Your task to perform on an android device: Search for pizza restaurants on Maps Image 0: 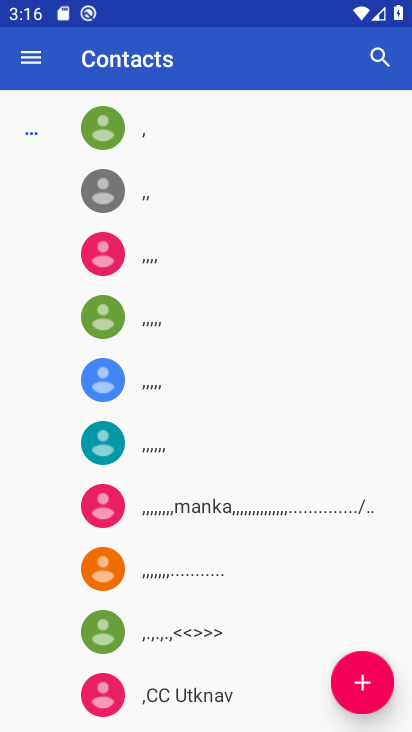
Step 0: press home button
Your task to perform on an android device: Search for pizza restaurants on Maps Image 1: 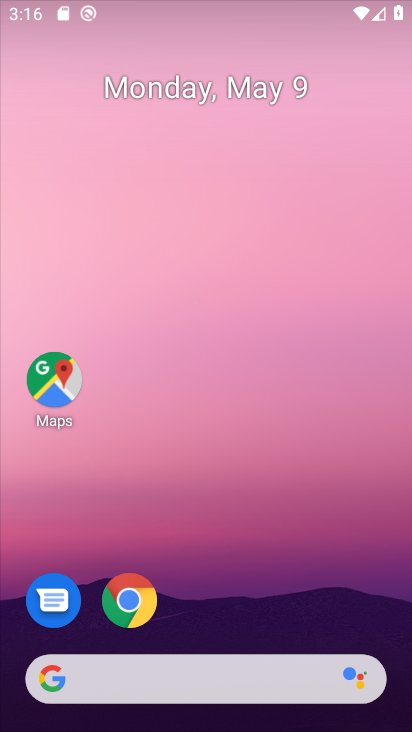
Step 1: drag from (256, 590) to (257, 252)
Your task to perform on an android device: Search for pizza restaurants on Maps Image 2: 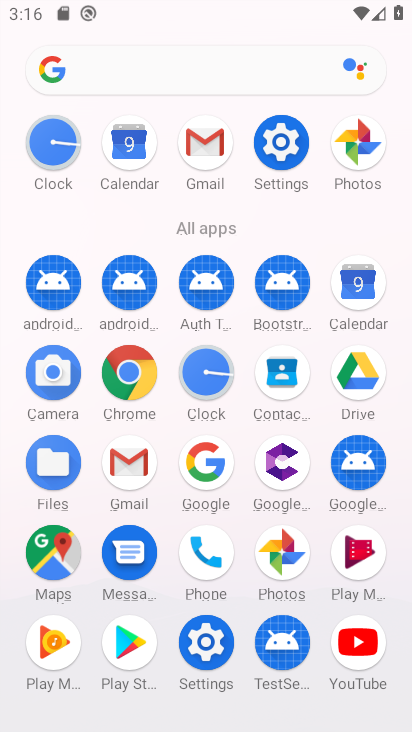
Step 2: click (69, 568)
Your task to perform on an android device: Search for pizza restaurants on Maps Image 3: 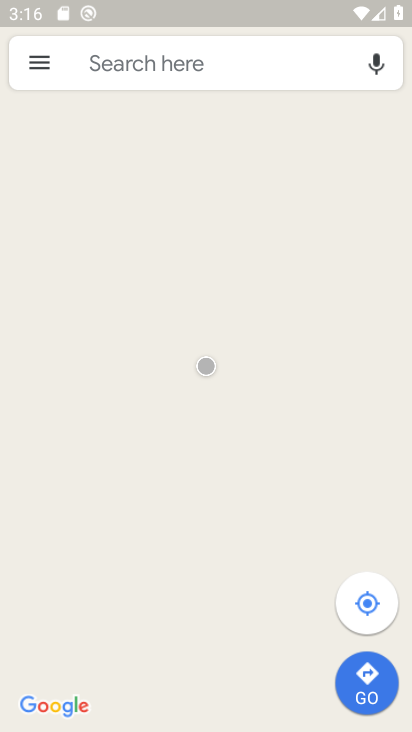
Step 3: click (241, 58)
Your task to perform on an android device: Search for pizza restaurants on Maps Image 4: 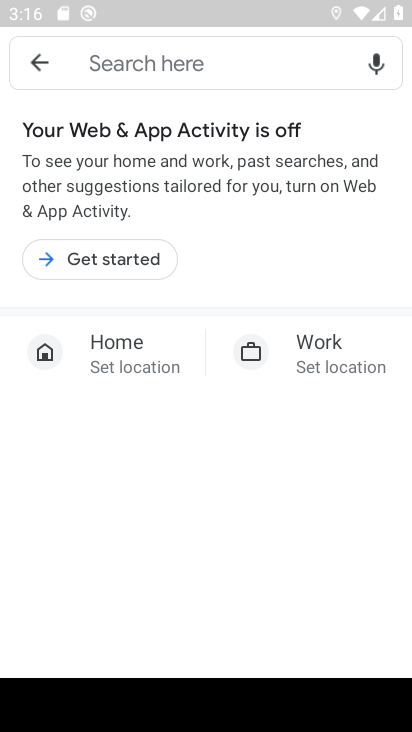
Step 4: click (148, 68)
Your task to perform on an android device: Search for pizza restaurants on Maps Image 5: 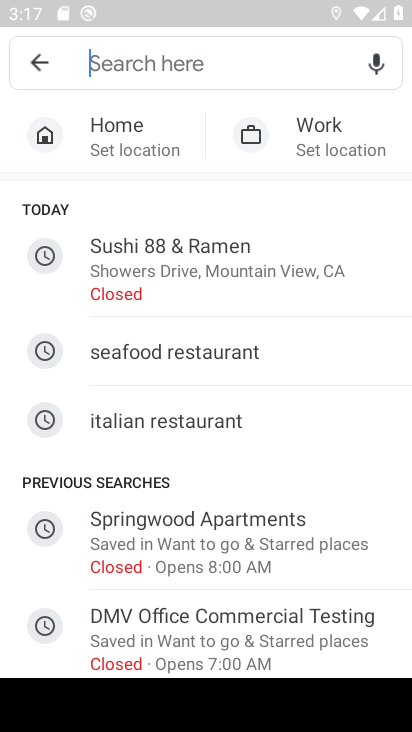
Step 5: drag from (214, 531) to (219, 344)
Your task to perform on an android device: Search for pizza restaurants on Maps Image 6: 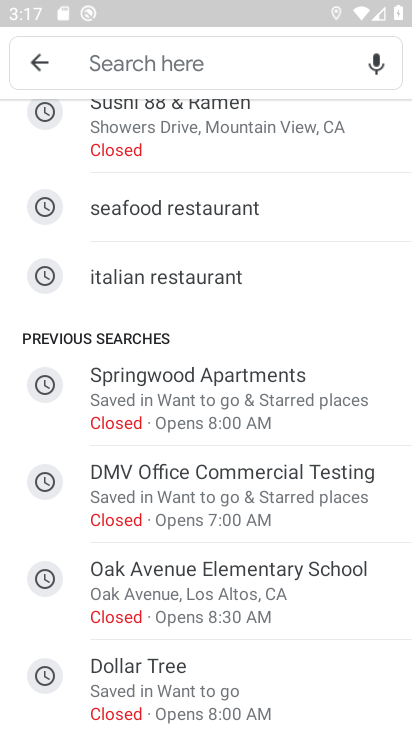
Step 6: drag from (239, 666) to (274, 356)
Your task to perform on an android device: Search for pizza restaurants on Maps Image 7: 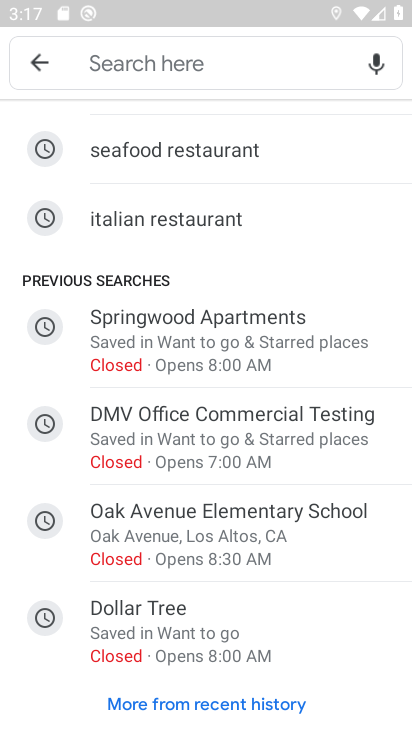
Step 7: click (204, 76)
Your task to perform on an android device: Search for pizza restaurants on Maps Image 8: 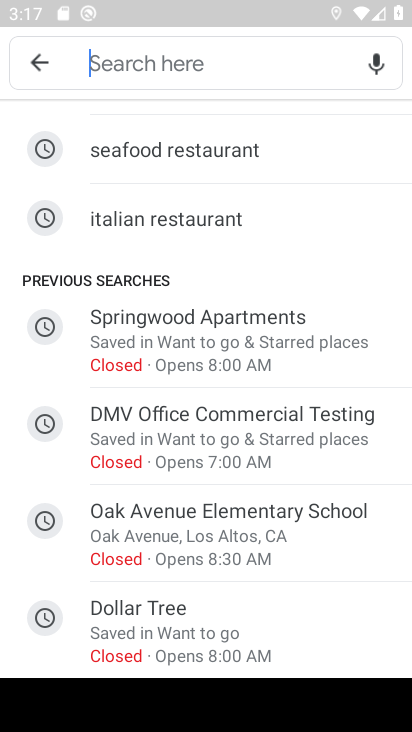
Step 8: type "pizza restaurants"
Your task to perform on an android device: Search for pizza restaurants on Maps Image 9: 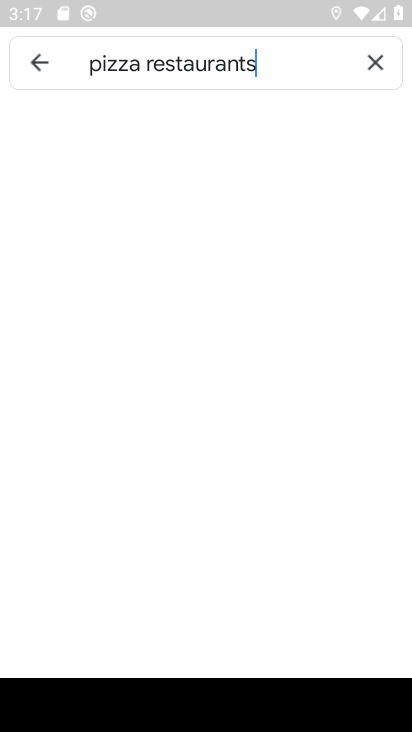
Step 9: type ""
Your task to perform on an android device: Search for pizza restaurants on Maps Image 10: 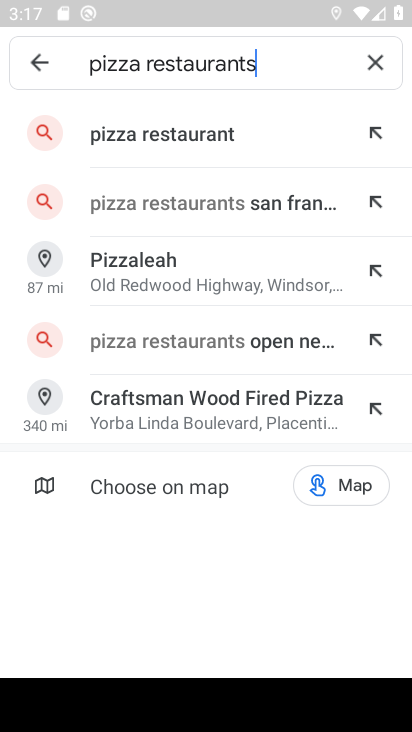
Step 10: click (215, 133)
Your task to perform on an android device: Search for pizza restaurants on Maps Image 11: 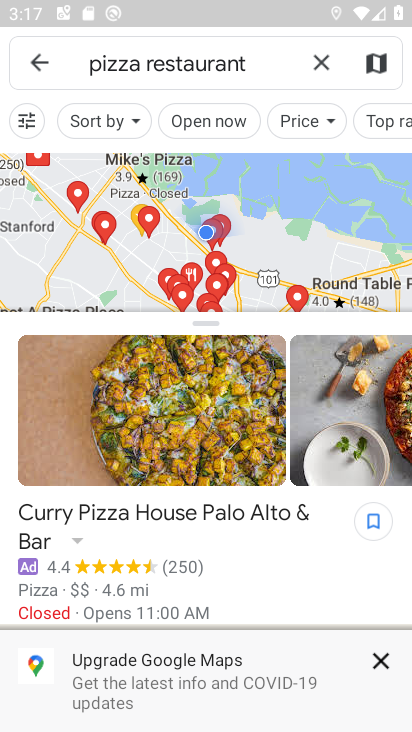
Step 11: task complete